Your task to perform on an android device: turn off wifi Image 0: 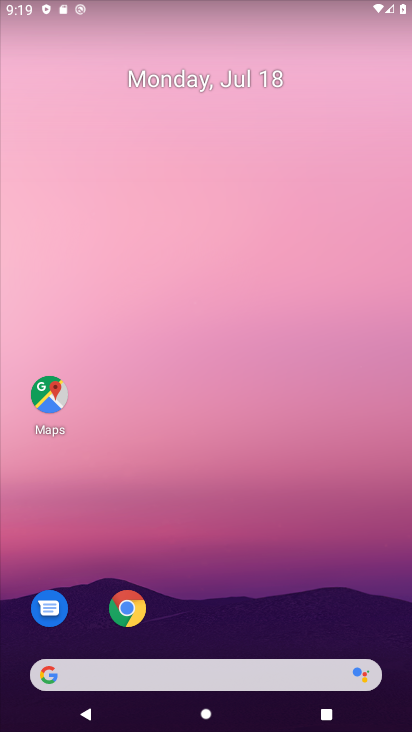
Step 0: click (228, 278)
Your task to perform on an android device: turn off wifi Image 1: 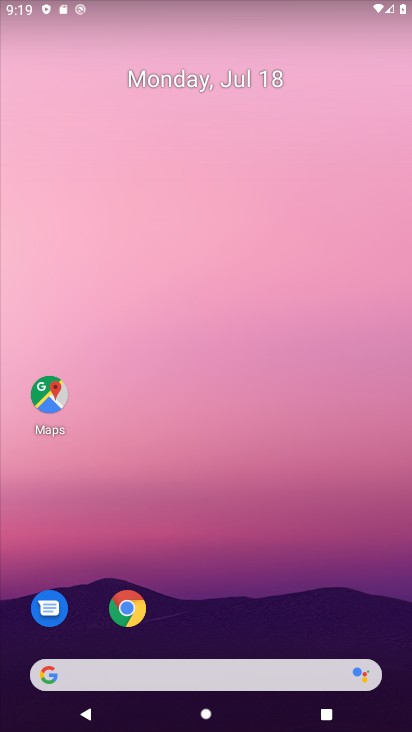
Step 1: drag from (232, 573) to (243, 125)
Your task to perform on an android device: turn off wifi Image 2: 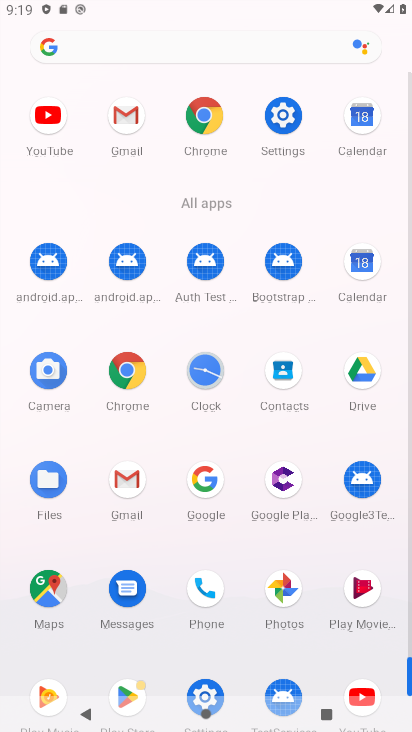
Step 2: click (288, 121)
Your task to perform on an android device: turn off wifi Image 3: 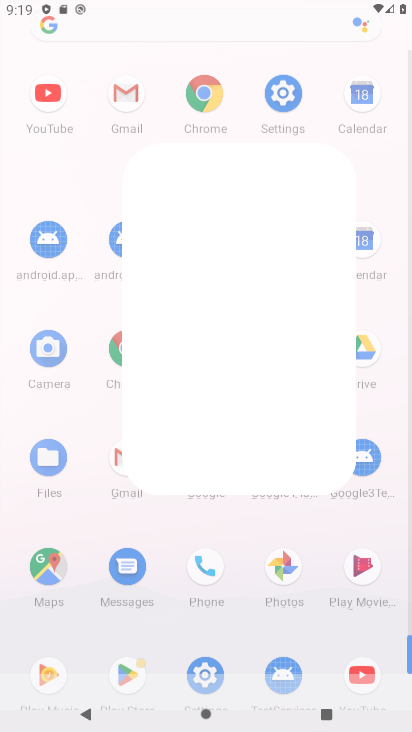
Step 3: click (285, 125)
Your task to perform on an android device: turn off wifi Image 4: 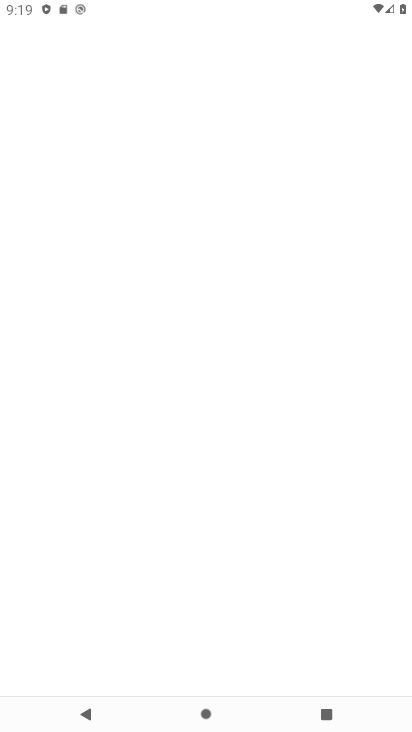
Step 4: click (285, 125)
Your task to perform on an android device: turn off wifi Image 5: 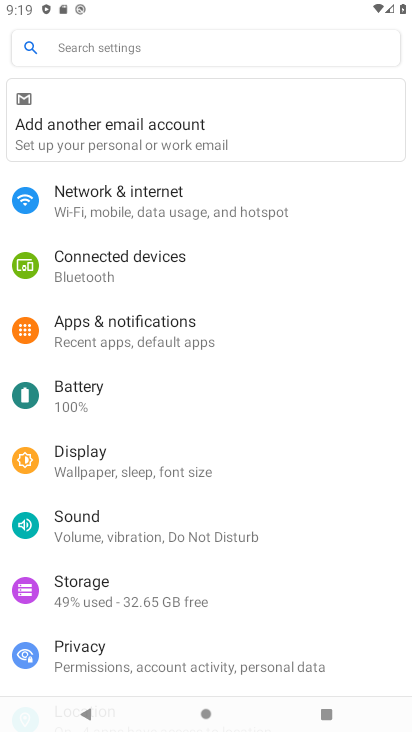
Step 5: click (122, 206)
Your task to perform on an android device: turn off wifi Image 6: 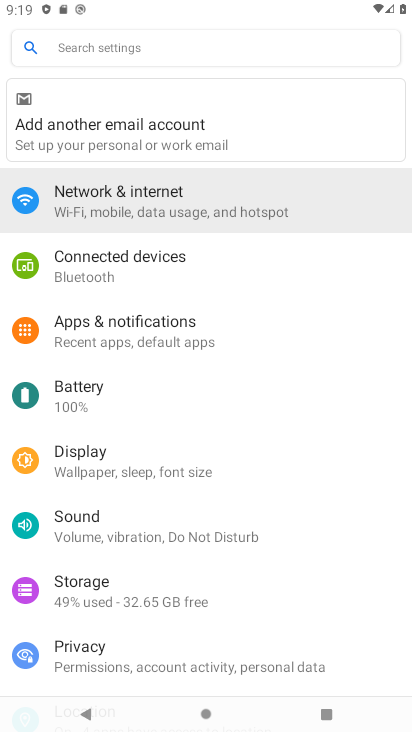
Step 6: click (121, 207)
Your task to perform on an android device: turn off wifi Image 7: 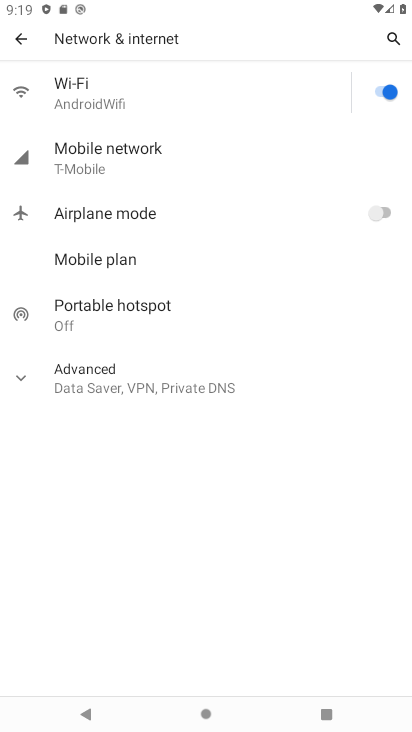
Step 7: click (386, 86)
Your task to perform on an android device: turn off wifi Image 8: 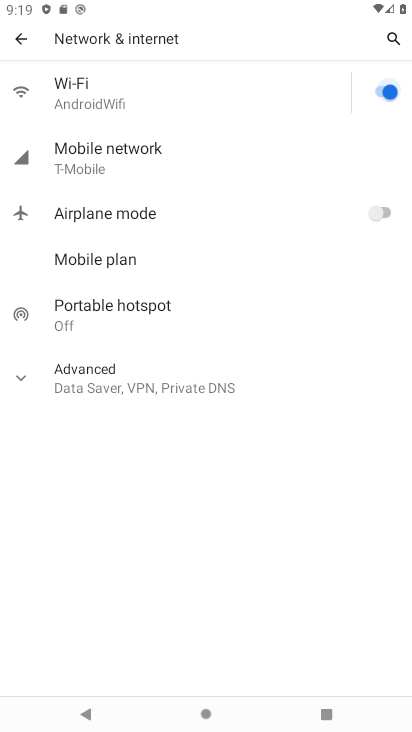
Step 8: click (386, 87)
Your task to perform on an android device: turn off wifi Image 9: 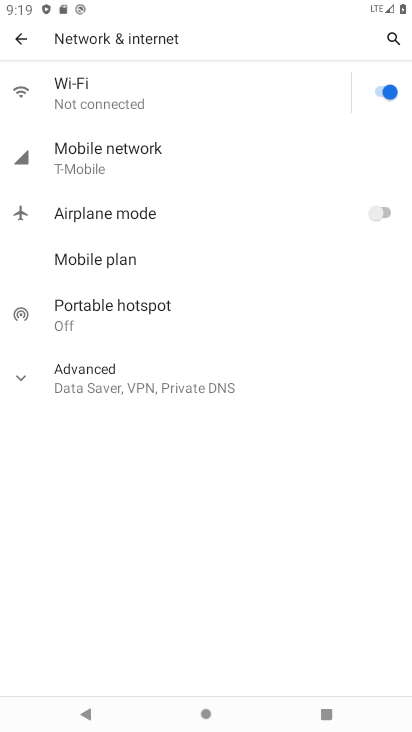
Step 9: task complete